Your task to perform on an android device: Open settings Image 0: 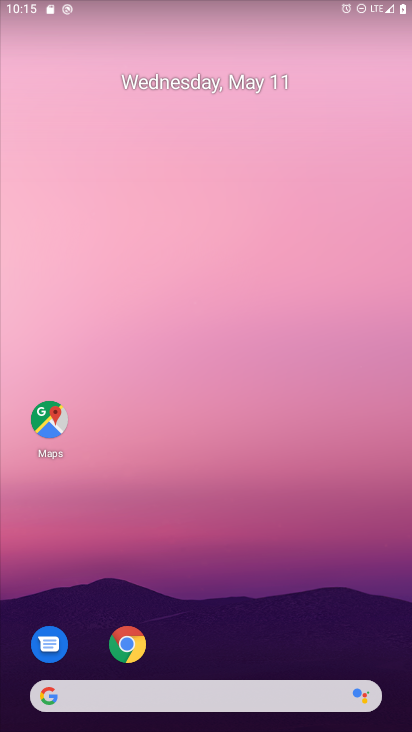
Step 0: drag from (225, 616) to (102, 106)
Your task to perform on an android device: Open settings Image 1: 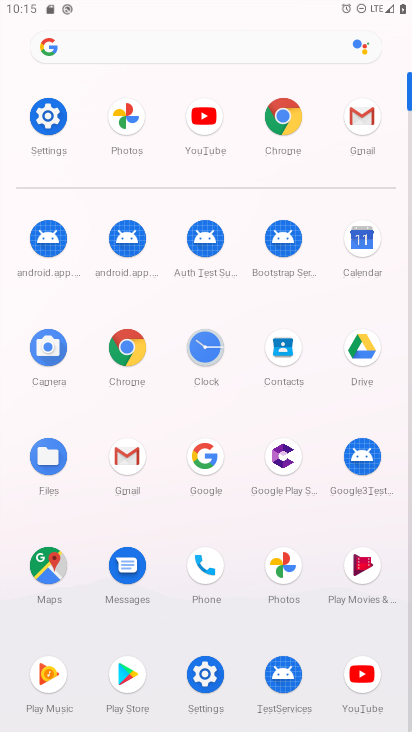
Step 1: click (47, 117)
Your task to perform on an android device: Open settings Image 2: 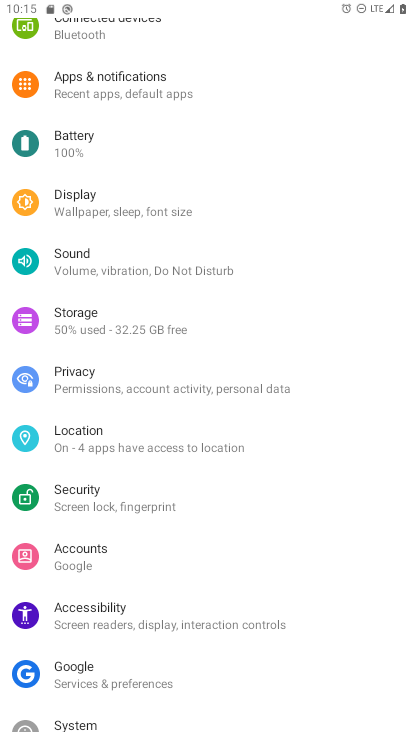
Step 2: task complete